Your task to perform on an android device: toggle sleep mode Image 0: 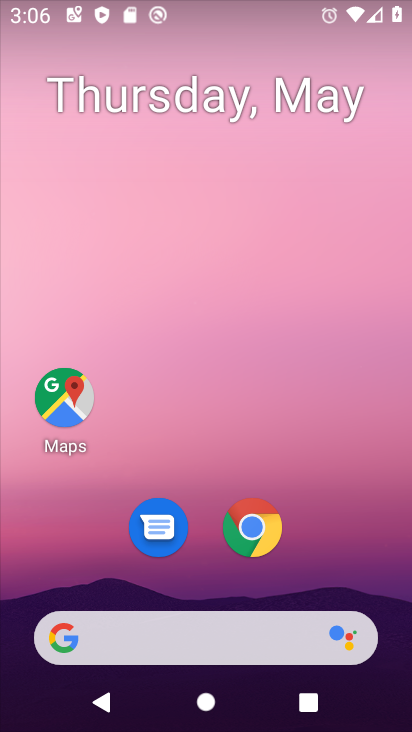
Step 0: drag from (85, 603) to (198, 216)
Your task to perform on an android device: toggle sleep mode Image 1: 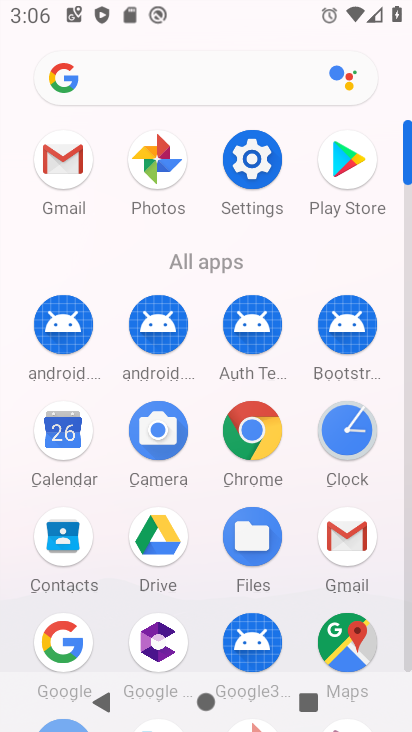
Step 1: drag from (172, 500) to (236, 293)
Your task to perform on an android device: toggle sleep mode Image 2: 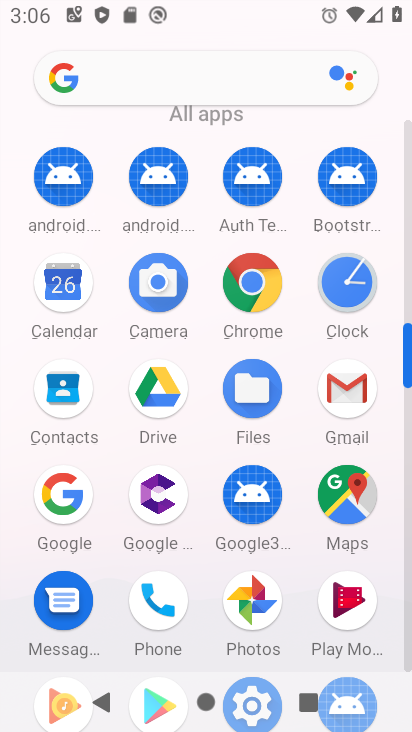
Step 2: drag from (255, 630) to (297, 404)
Your task to perform on an android device: toggle sleep mode Image 3: 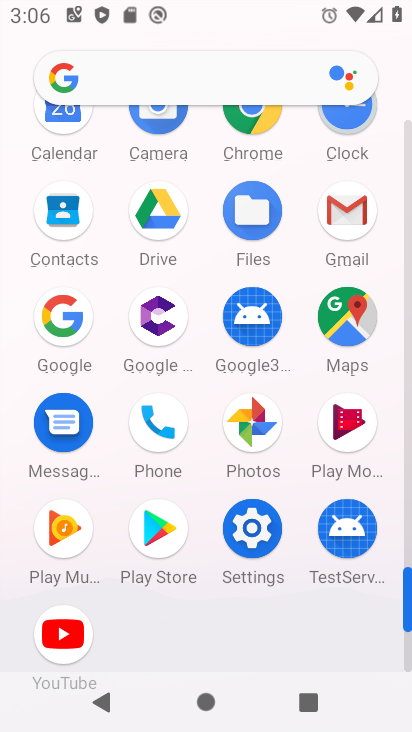
Step 3: click (264, 559)
Your task to perform on an android device: toggle sleep mode Image 4: 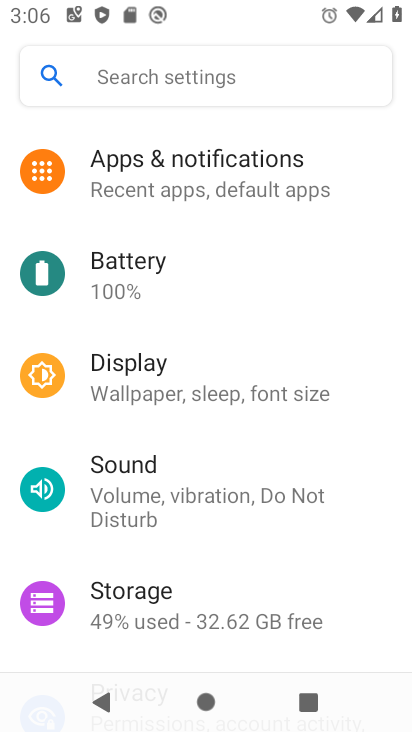
Step 4: click (154, 383)
Your task to perform on an android device: toggle sleep mode Image 5: 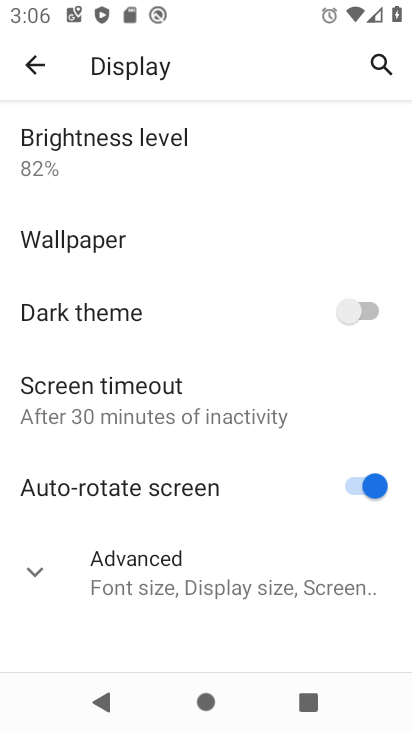
Step 5: click (145, 538)
Your task to perform on an android device: toggle sleep mode Image 6: 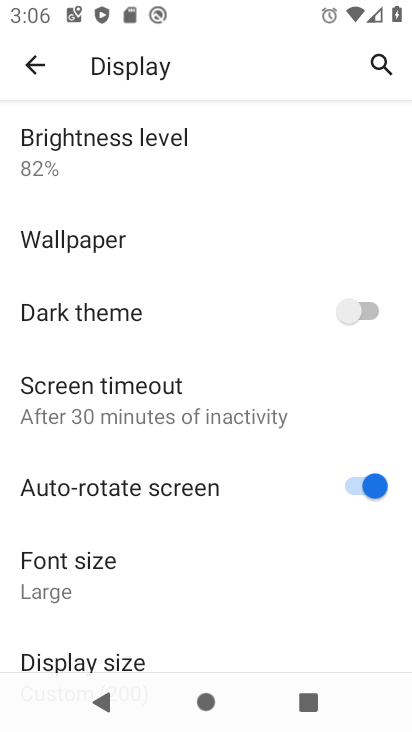
Step 6: task complete